Your task to perform on an android device: Go to Maps Image 0: 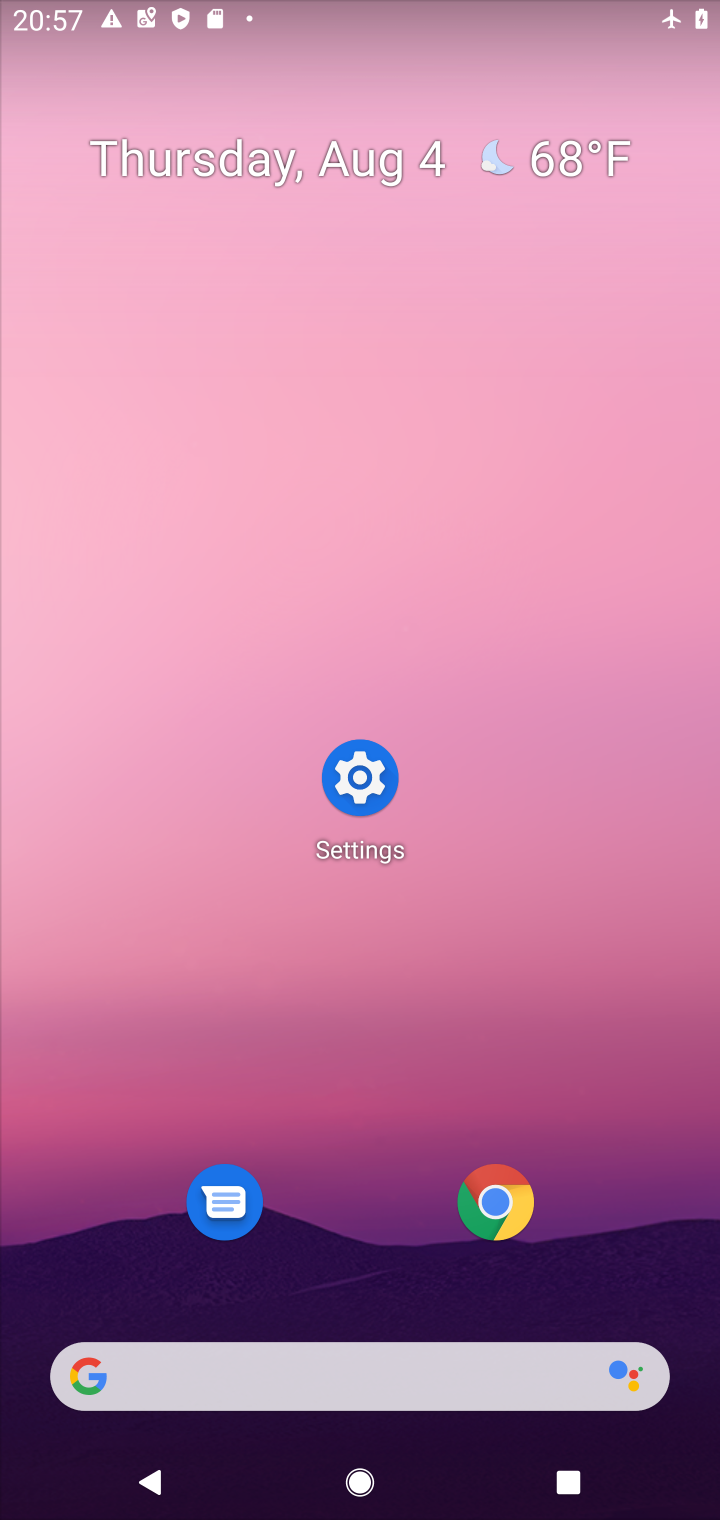
Step 0: drag from (329, 1035) to (312, 312)
Your task to perform on an android device: Go to Maps Image 1: 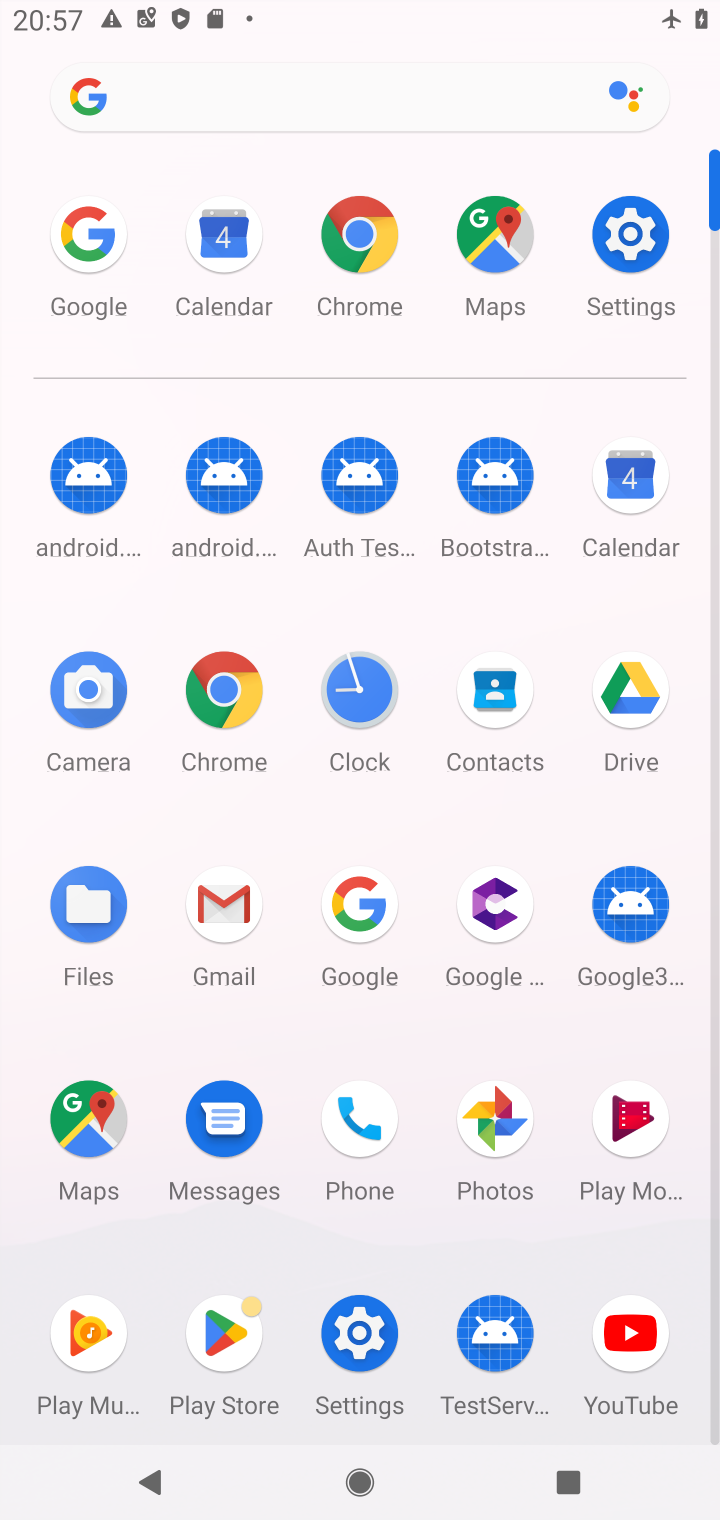
Step 1: click (476, 253)
Your task to perform on an android device: Go to Maps Image 2: 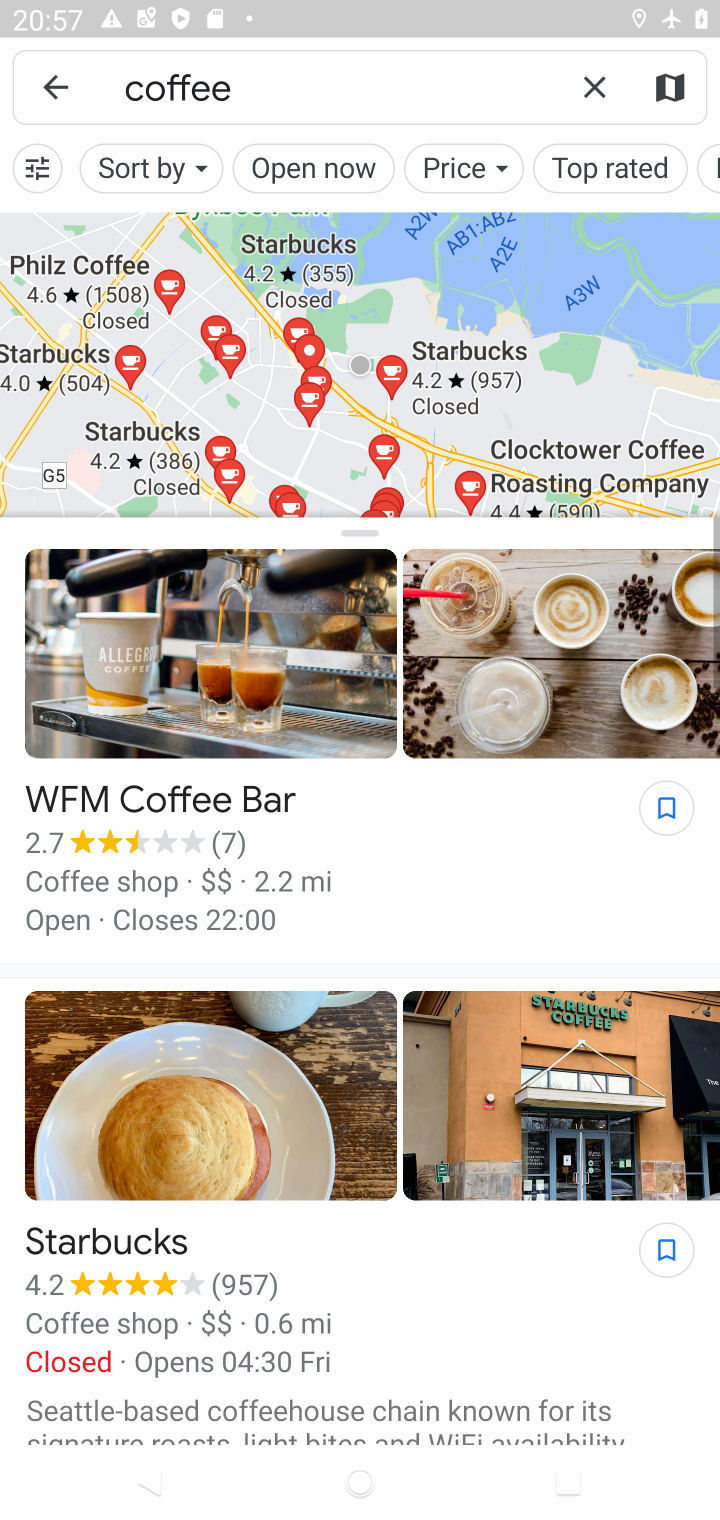
Step 2: task complete